Your task to perform on an android device: Open the web browser Image 0: 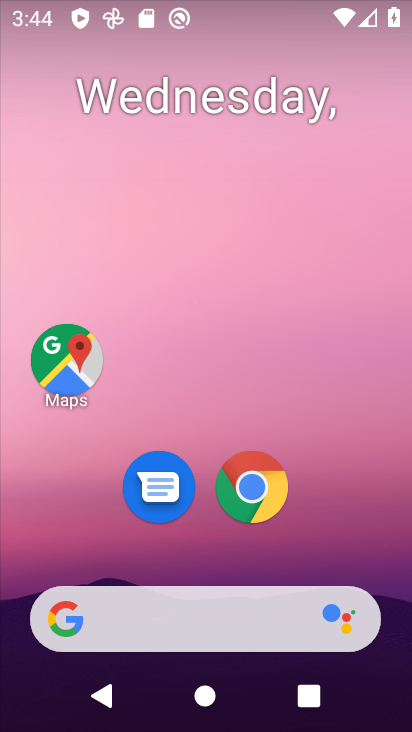
Step 0: drag from (352, 561) to (349, 293)
Your task to perform on an android device: Open the web browser Image 1: 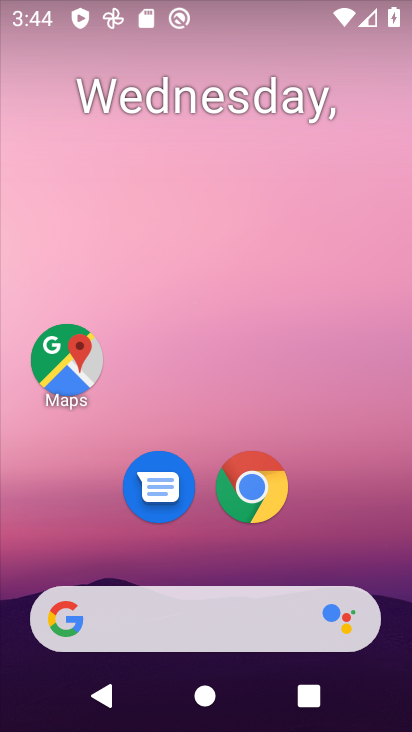
Step 1: drag from (343, 498) to (359, 49)
Your task to perform on an android device: Open the web browser Image 2: 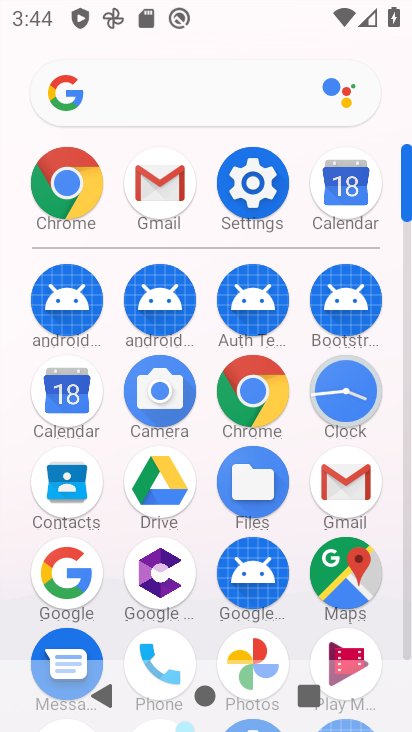
Step 2: click (252, 399)
Your task to perform on an android device: Open the web browser Image 3: 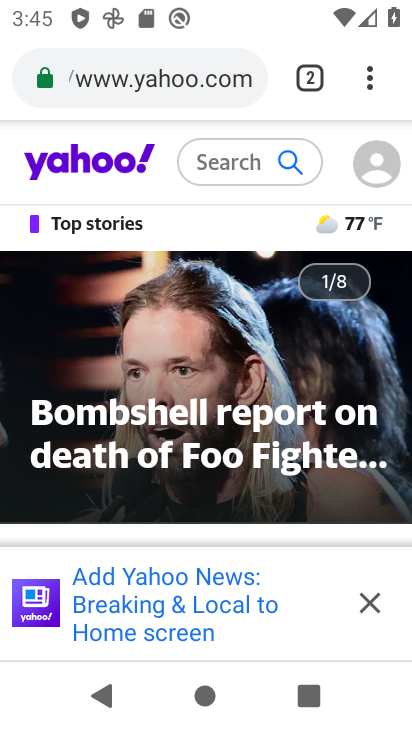
Step 3: task complete